Your task to perform on an android device: open a new tab in the chrome app Image 0: 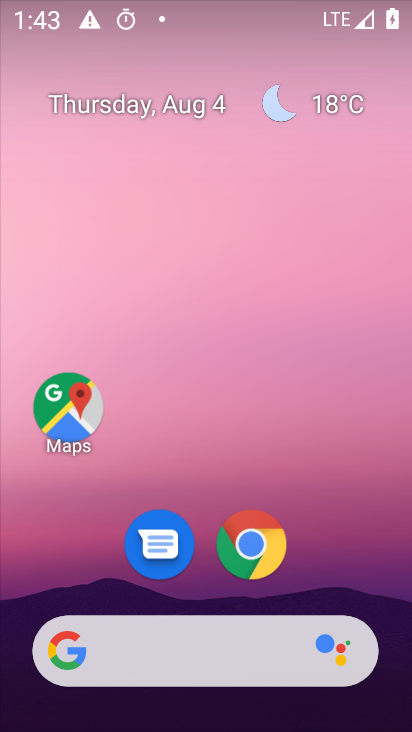
Step 0: click (249, 539)
Your task to perform on an android device: open a new tab in the chrome app Image 1: 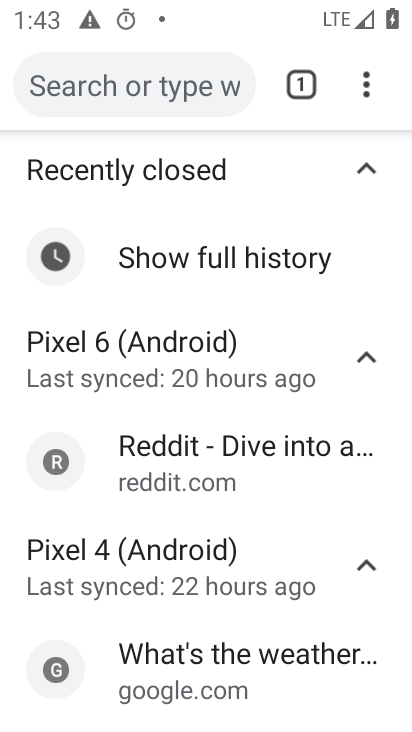
Step 1: click (364, 90)
Your task to perform on an android device: open a new tab in the chrome app Image 2: 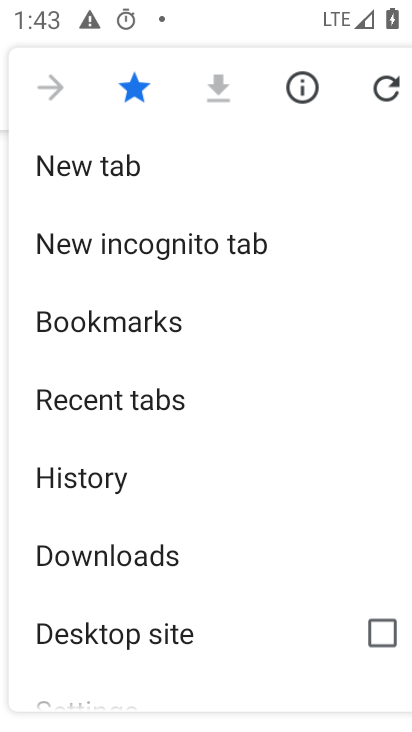
Step 2: click (80, 163)
Your task to perform on an android device: open a new tab in the chrome app Image 3: 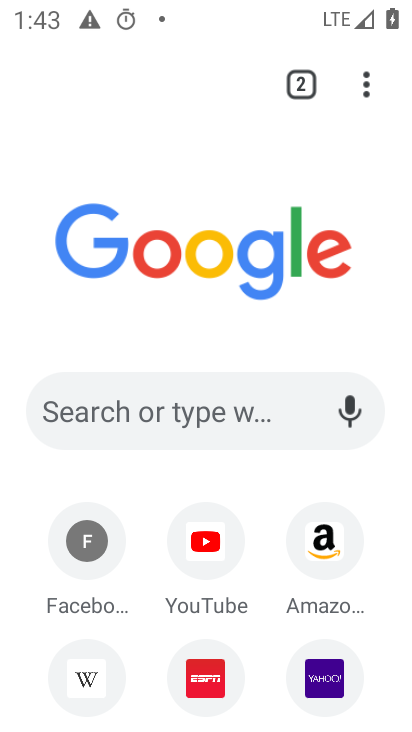
Step 3: task complete